Your task to perform on an android device: change the clock display to show seconds Image 0: 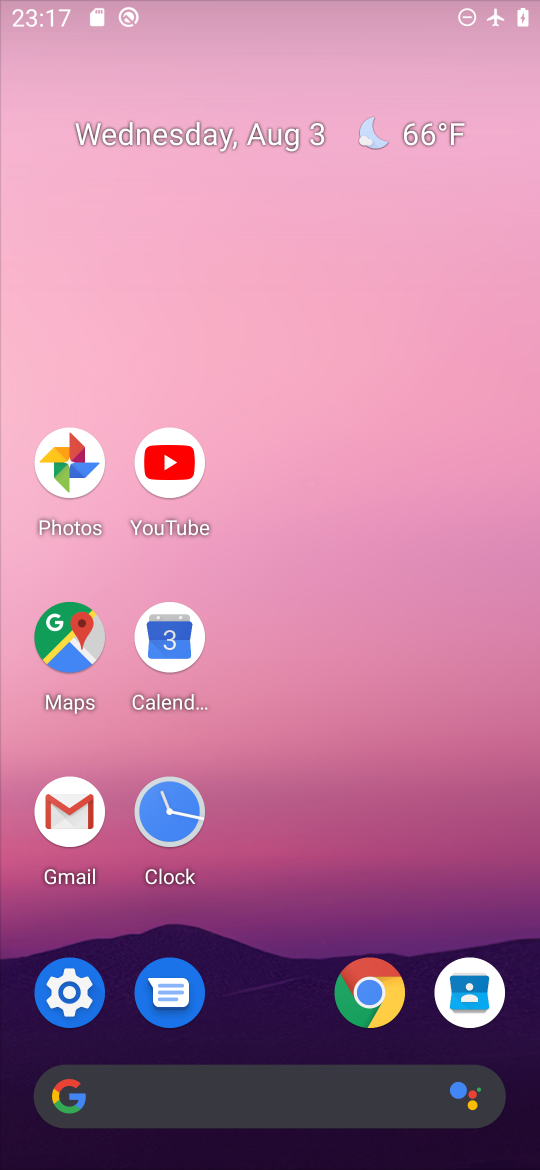
Step 0: press home button
Your task to perform on an android device: change the clock display to show seconds Image 1: 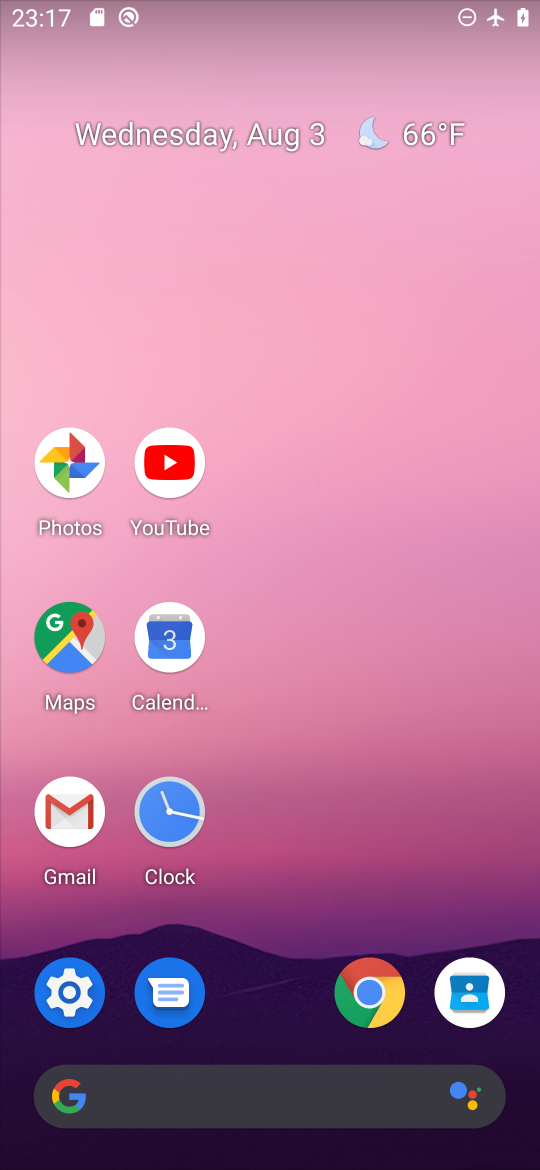
Step 1: click (169, 803)
Your task to perform on an android device: change the clock display to show seconds Image 2: 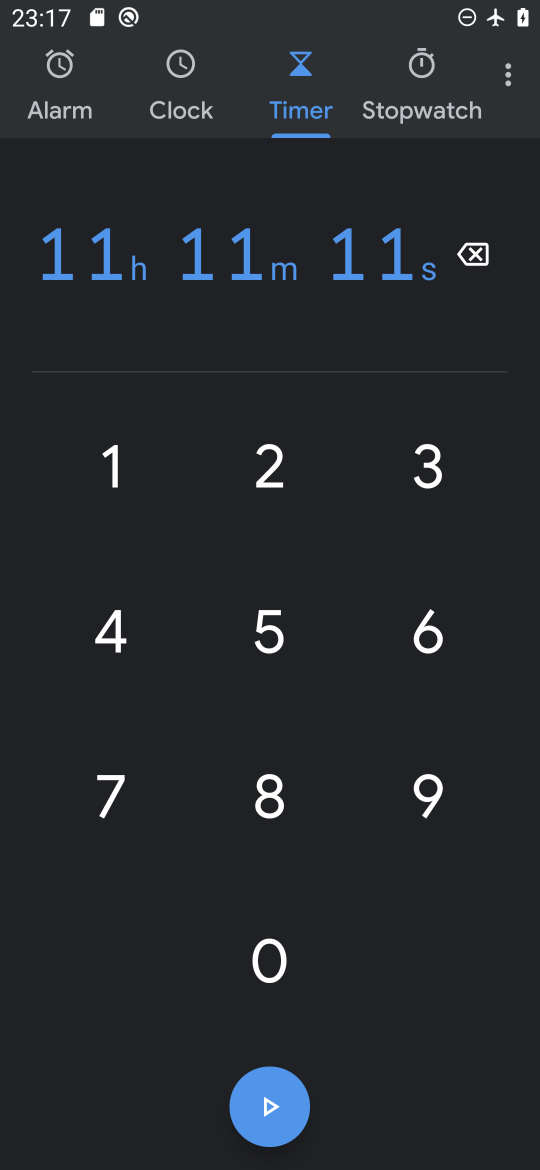
Step 2: click (505, 80)
Your task to perform on an android device: change the clock display to show seconds Image 3: 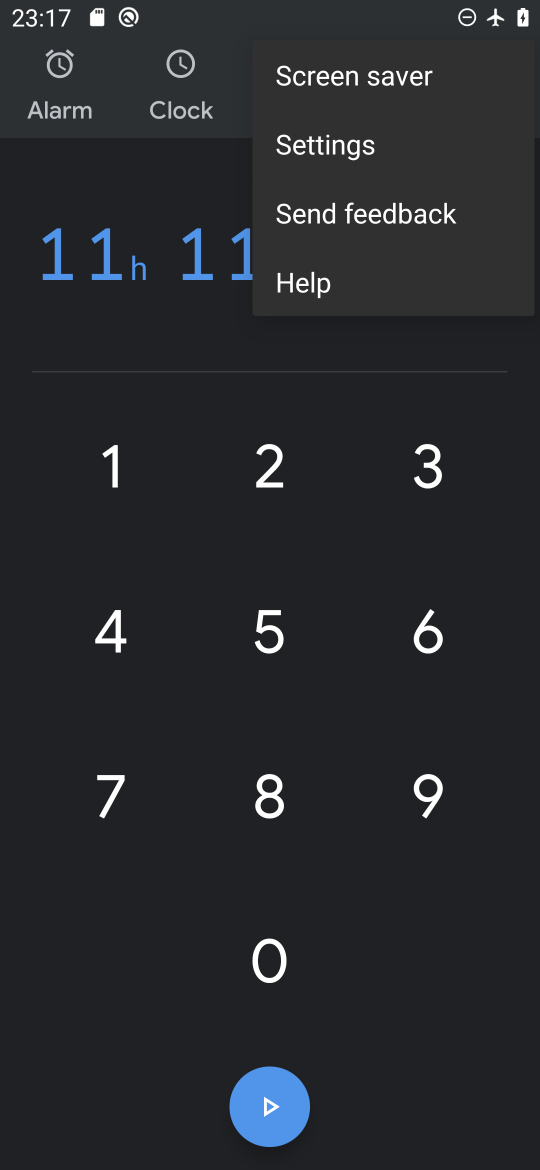
Step 3: click (369, 151)
Your task to perform on an android device: change the clock display to show seconds Image 4: 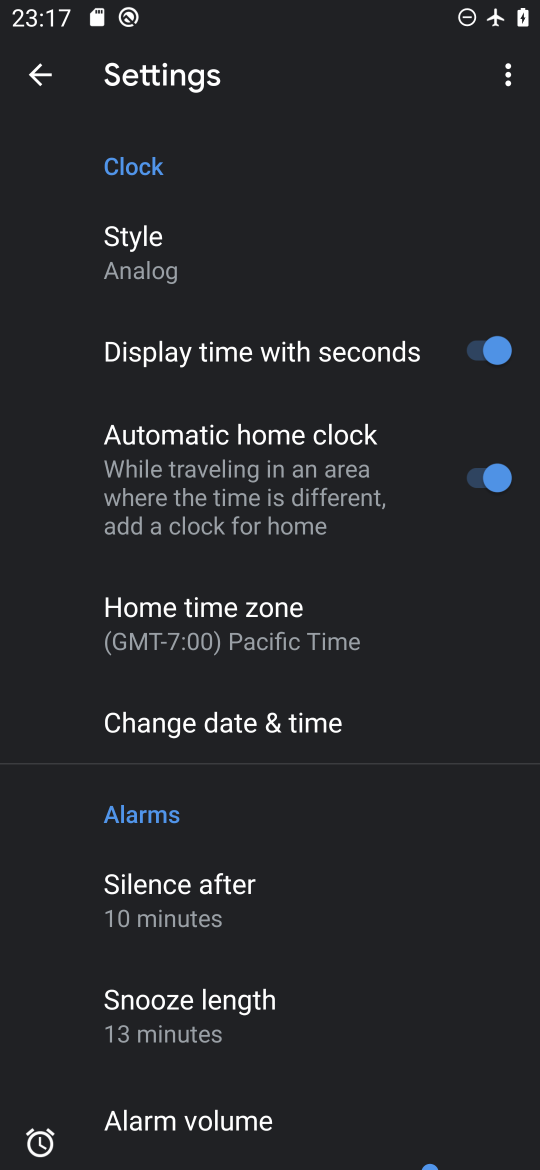
Step 4: task complete